Your task to perform on an android device: find which apps use the phone's location Image 0: 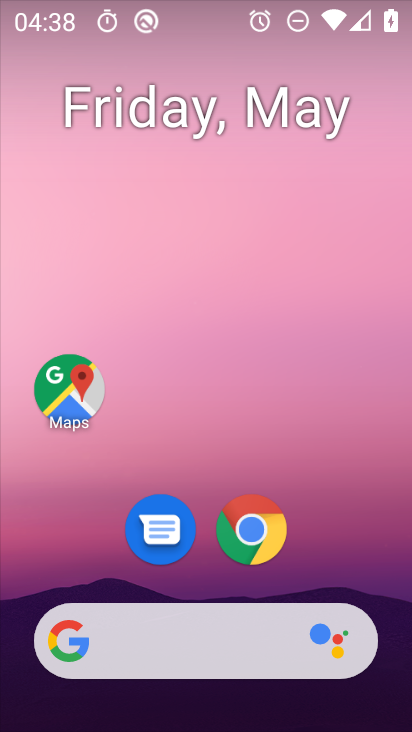
Step 0: drag from (388, 715) to (378, 137)
Your task to perform on an android device: find which apps use the phone's location Image 1: 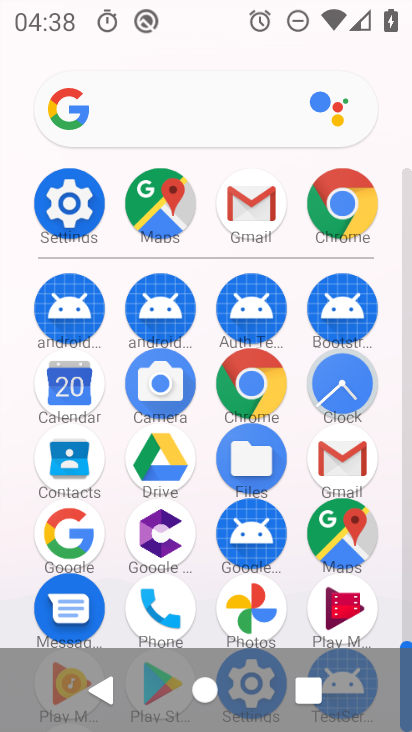
Step 1: click (72, 204)
Your task to perform on an android device: find which apps use the phone's location Image 2: 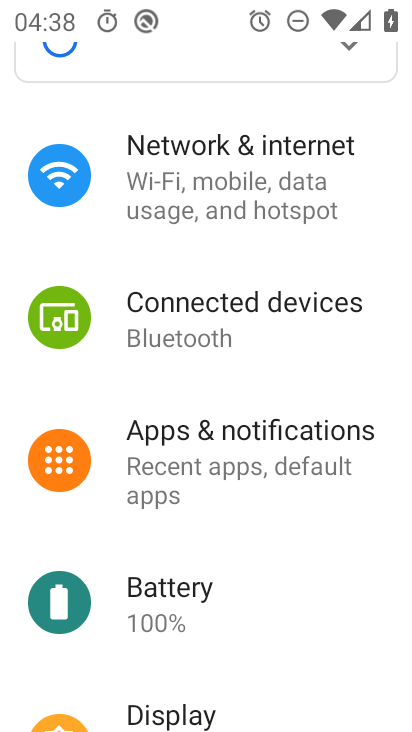
Step 2: drag from (308, 692) to (274, 282)
Your task to perform on an android device: find which apps use the phone's location Image 3: 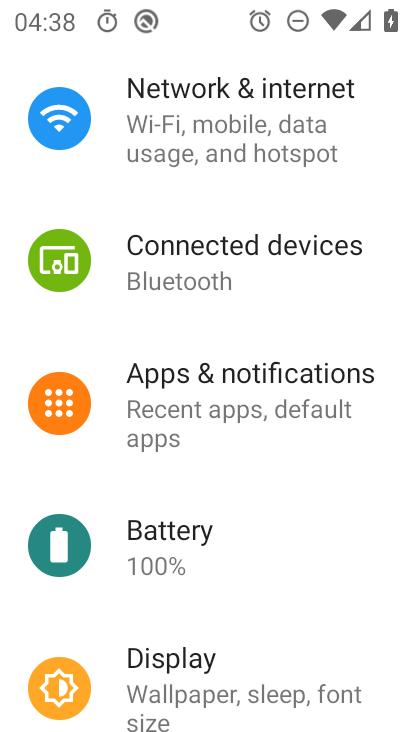
Step 3: drag from (354, 550) to (351, 282)
Your task to perform on an android device: find which apps use the phone's location Image 4: 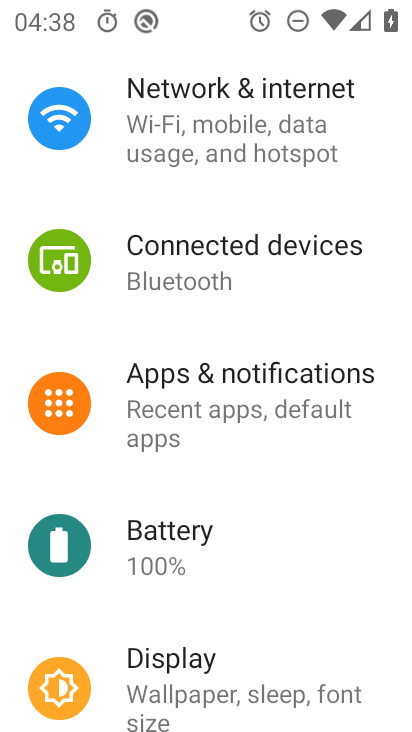
Step 4: drag from (371, 701) to (355, 476)
Your task to perform on an android device: find which apps use the phone's location Image 5: 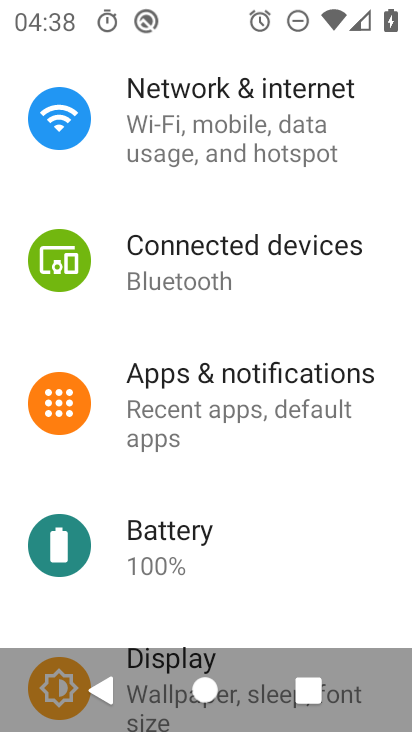
Step 5: drag from (345, 512) to (335, 378)
Your task to perform on an android device: find which apps use the phone's location Image 6: 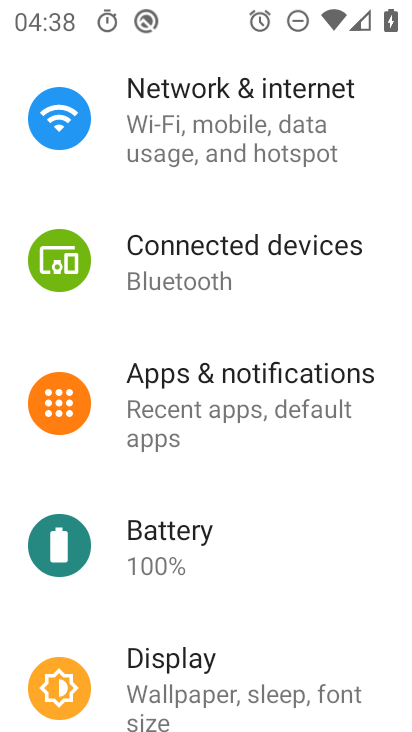
Step 6: drag from (313, 679) to (321, 377)
Your task to perform on an android device: find which apps use the phone's location Image 7: 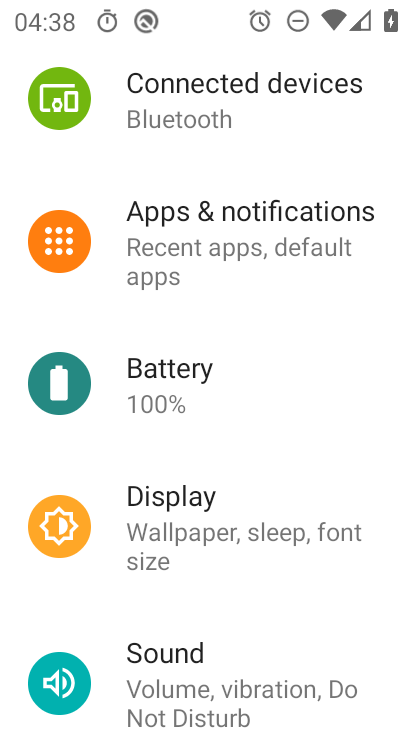
Step 7: drag from (377, 654) to (362, 315)
Your task to perform on an android device: find which apps use the phone's location Image 8: 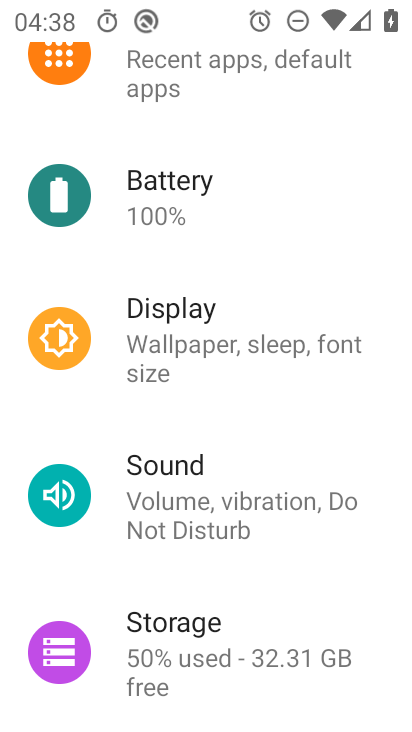
Step 8: drag from (363, 691) to (316, 324)
Your task to perform on an android device: find which apps use the phone's location Image 9: 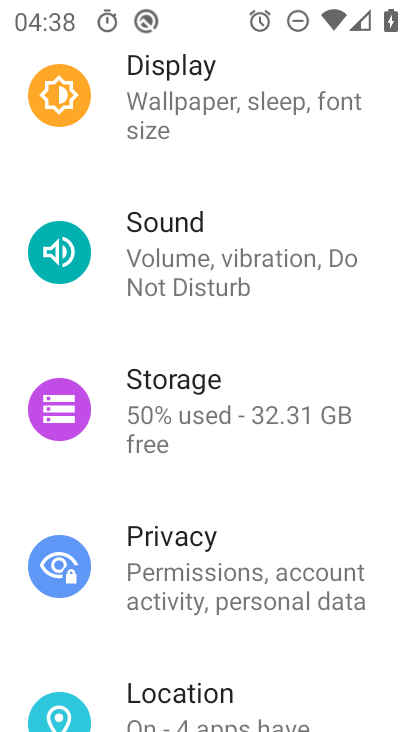
Step 9: click (202, 695)
Your task to perform on an android device: find which apps use the phone's location Image 10: 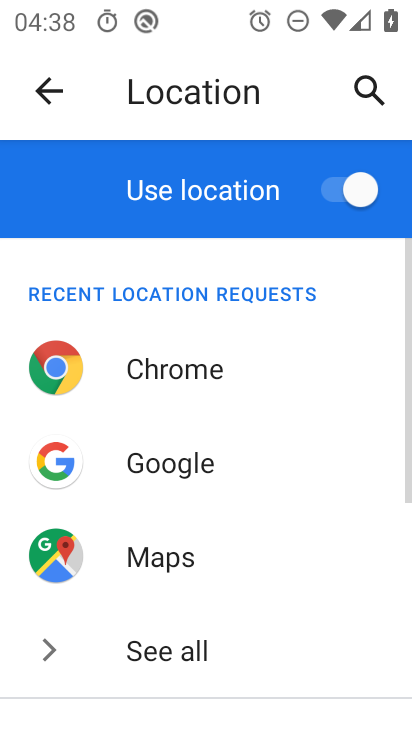
Step 10: drag from (346, 677) to (344, 364)
Your task to perform on an android device: find which apps use the phone's location Image 11: 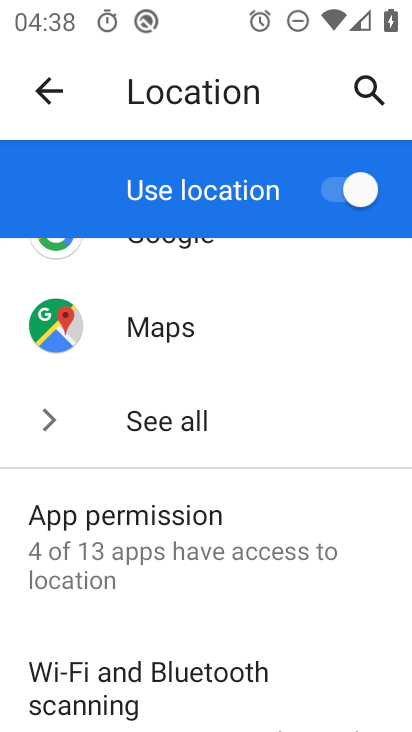
Step 11: click (91, 557)
Your task to perform on an android device: find which apps use the phone's location Image 12: 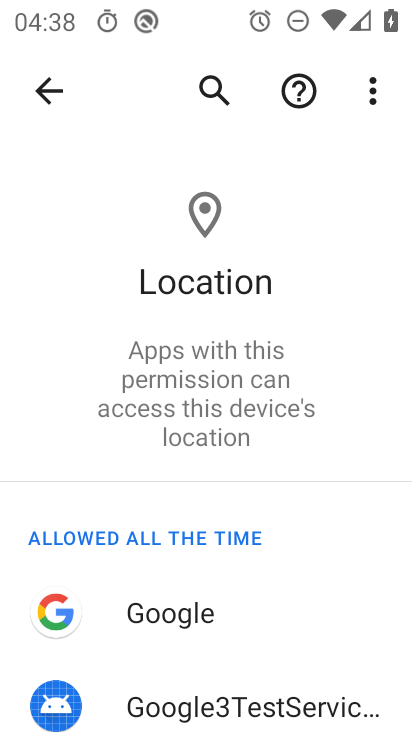
Step 12: task complete